Your task to perform on an android device: find snoozed emails in the gmail app Image 0: 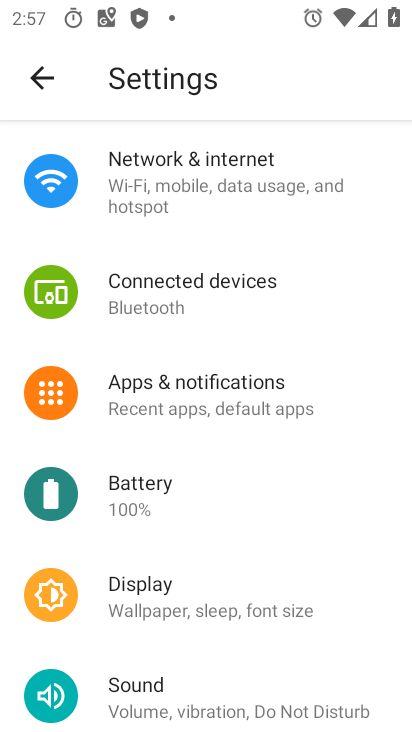
Step 0: press home button
Your task to perform on an android device: find snoozed emails in the gmail app Image 1: 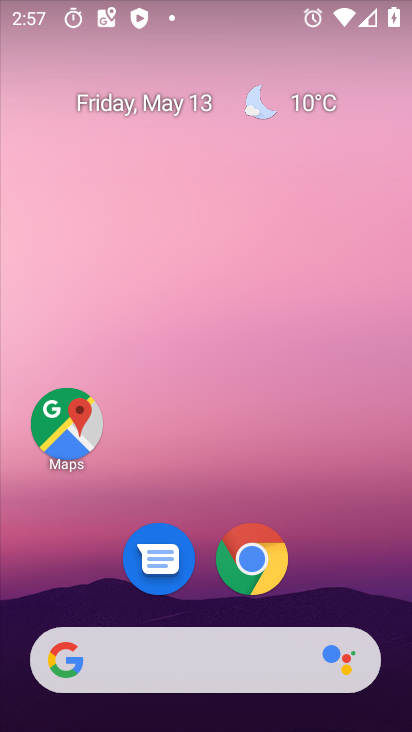
Step 1: drag from (214, 603) to (198, 229)
Your task to perform on an android device: find snoozed emails in the gmail app Image 2: 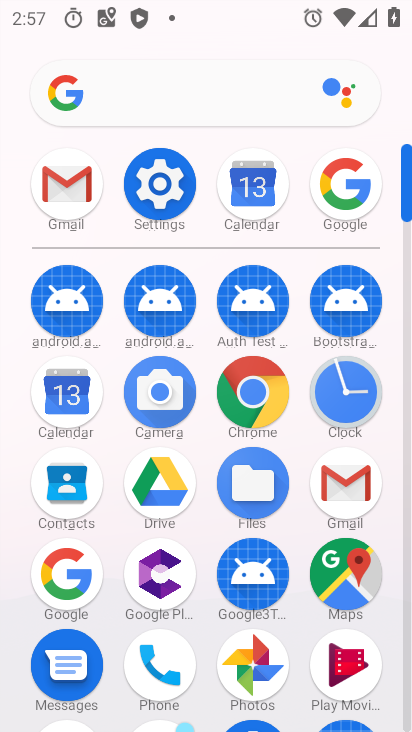
Step 2: click (312, 485)
Your task to perform on an android device: find snoozed emails in the gmail app Image 3: 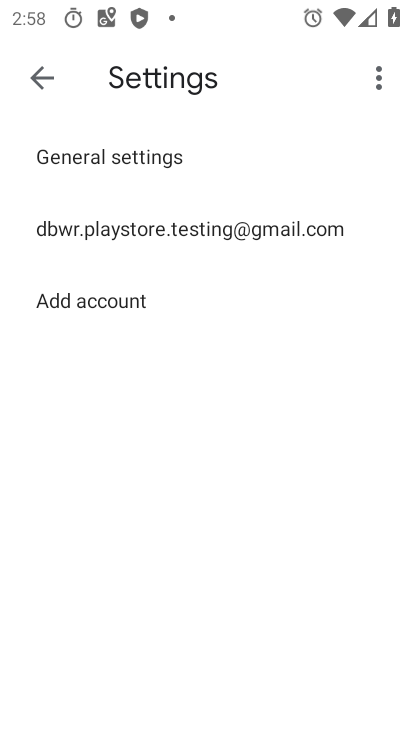
Step 3: click (36, 77)
Your task to perform on an android device: find snoozed emails in the gmail app Image 4: 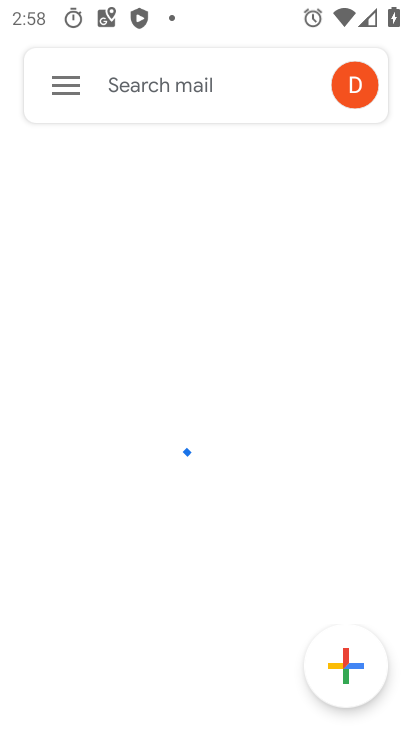
Step 4: click (83, 90)
Your task to perform on an android device: find snoozed emails in the gmail app Image 5: 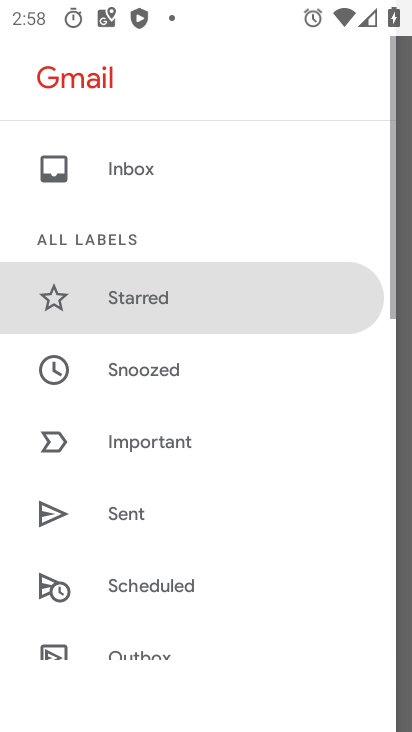
Step 5: drag from (203, 517) to (207, 261)
Your task to perform on an android device: find snoozed emails in the gmail app Image 6: 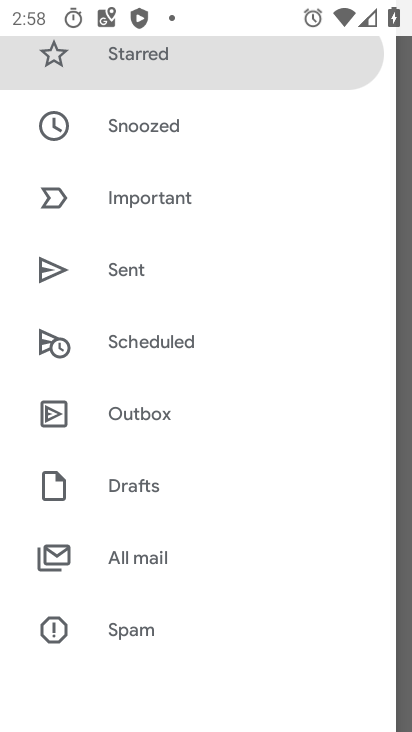
Step 6: click (211, 139)
Your task to perform on an android device: find snoozed emails in the gmail app Image 7: 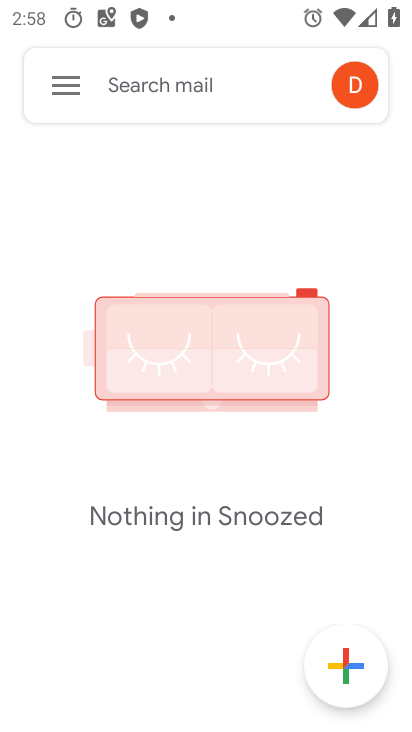
Step 7: task complete